Your task to perform on an android device: see tabs open on other devices in the chrome app Image 0: 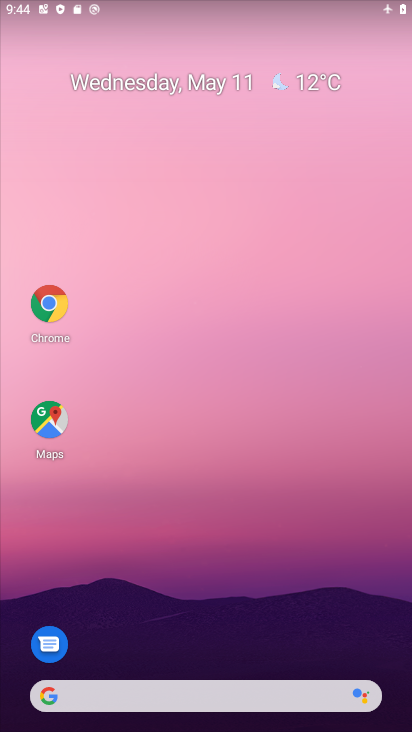
Step 0: click (53, 313)
Your task to perform on an android device: see tabs open on other devices in the chrome app Image 1: 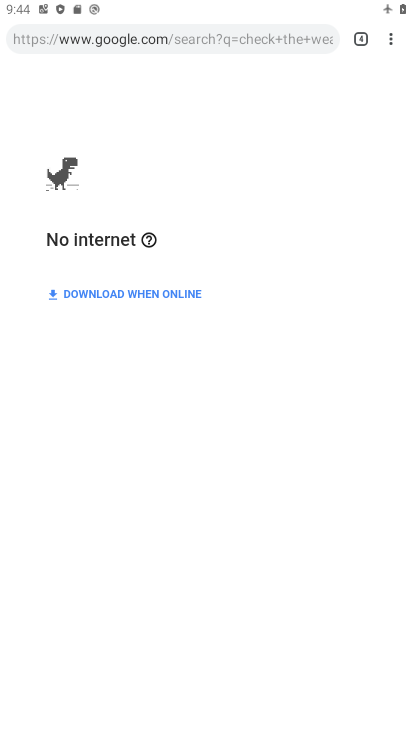
Step 1: click (394, 39)
Your task to perform on an android device: see tabs open on other devices in the chrome app Image 2: 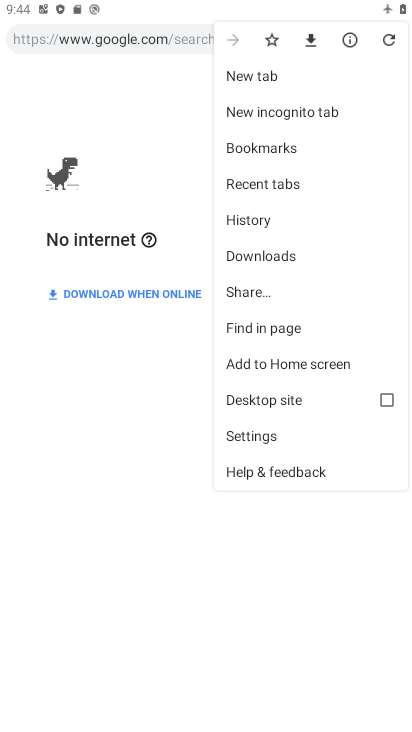
Step 2: click (263, 186)
Your task to perform on an android device: see tabs open on other devices in the chrome app Image 3: 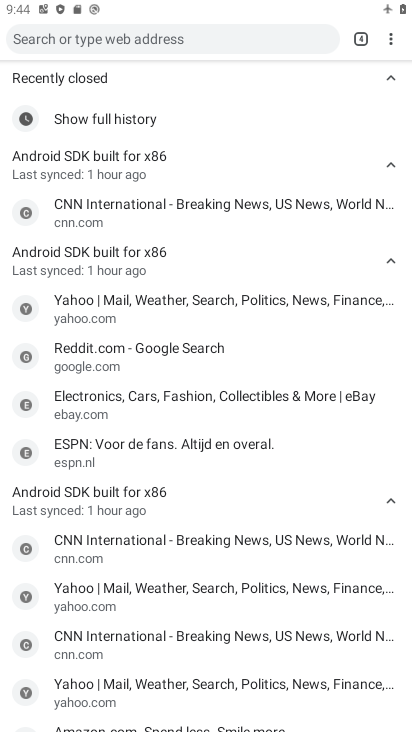
Step 3: task complete